Your task to perform on an android device: Search for Italian restaurants on Maps Image 0: 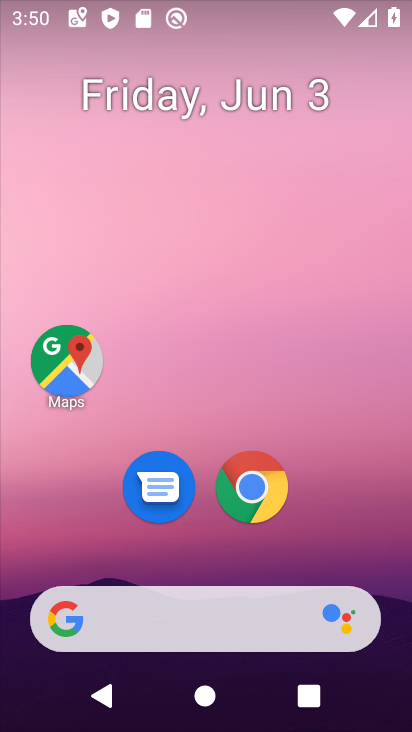
Step 0: drag from (218, 37) to (287, 1)
Your task to perform on an android device: Search for Italian restaurants on Maps Image 1: 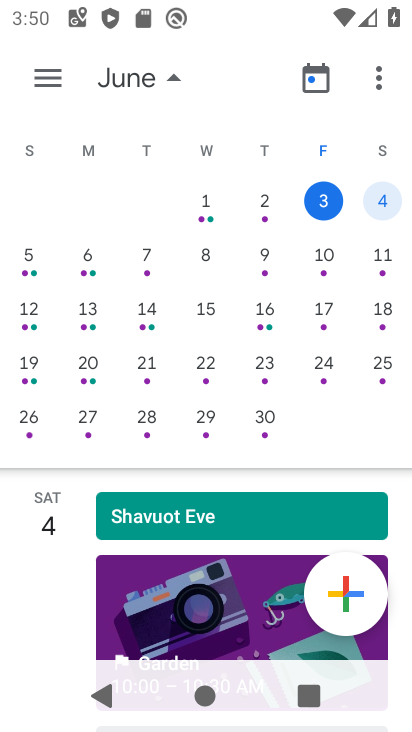
Step 1: press home button
Your task to perform on an android device: Search for Italian restaurants on Maps Image 2: 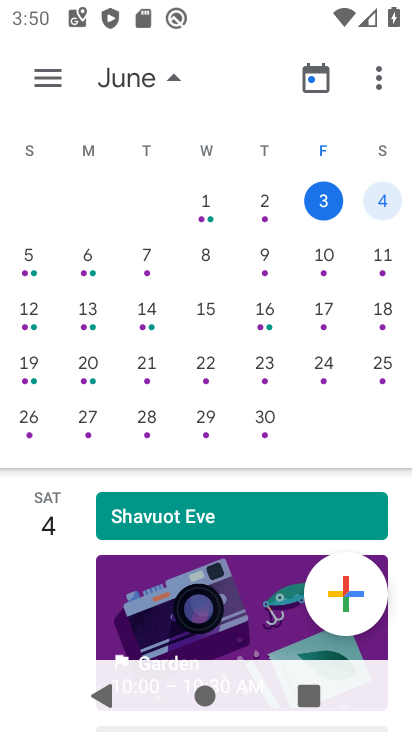
Step 2: drag from (174, 503) to (293, 6)
Your task to perform on an android device: Search for Italian restaurants on Maps Image 3: 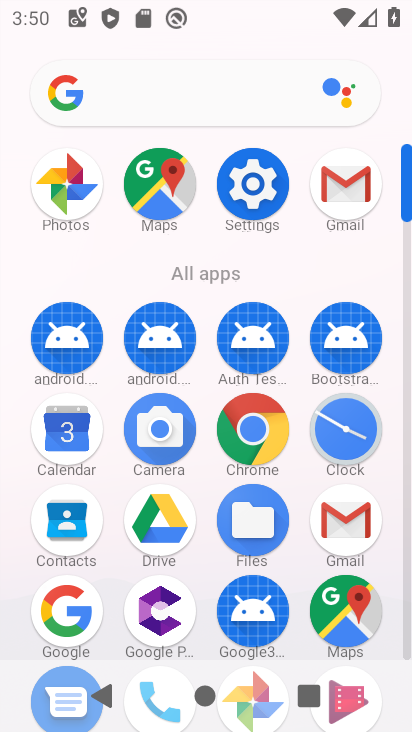
Step 3: click (345, 618)
Your task to perform on an android device: Search for Italian restaurants on Maps Image 4: 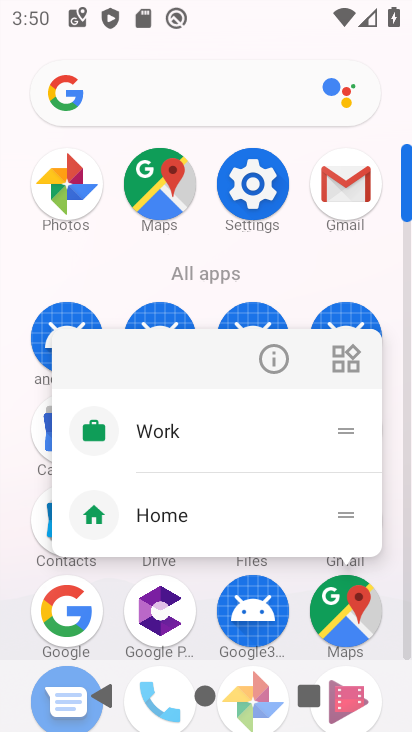
Step 4: click (270, 340)
Your task to perform on an android device: Search for Italian restaurants on Maps Image 5: 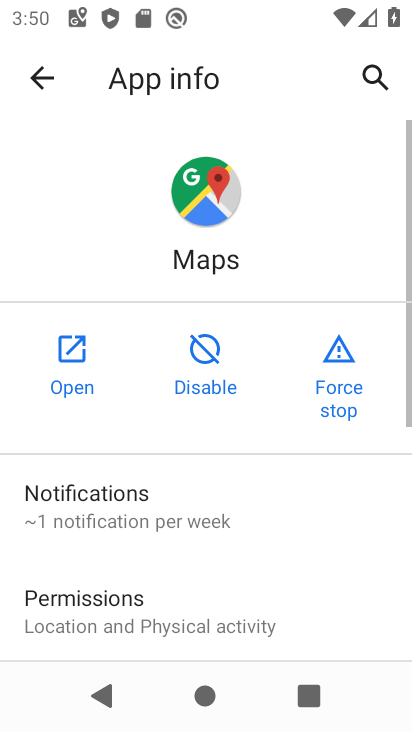
Step 5: click (54, 356)
Your task to perform on an android device: Search for Italian restaurants on Maps Image 6: 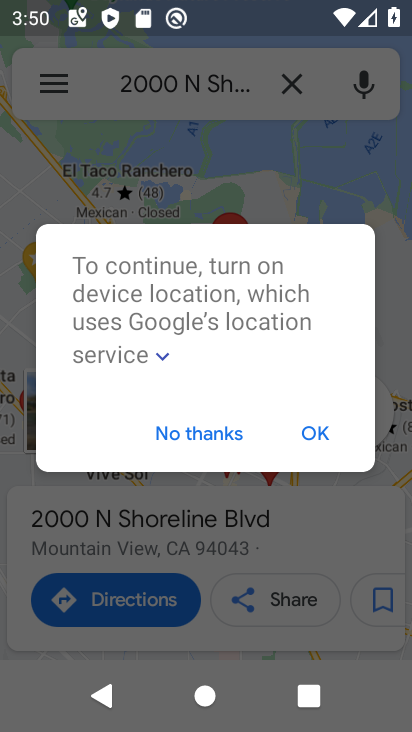
Step 6: click (304, 436)
Your task to perform on an android device: Search for Italian restaurants on Maps Image 7: 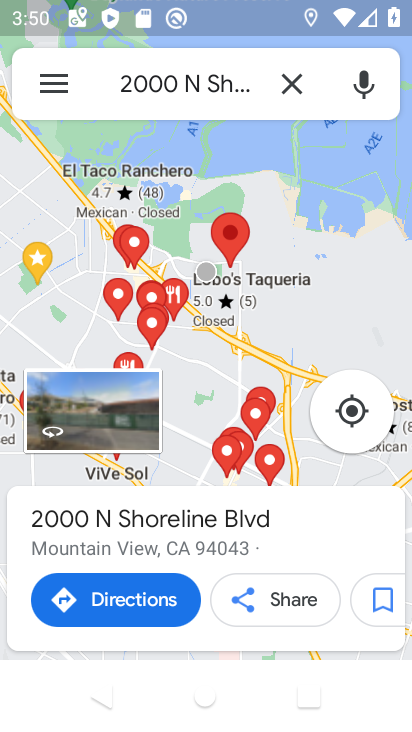
Step 7: click (293, 72)
Your task to perform on an android device: Search for Italian restaurants on Maps Image 8: 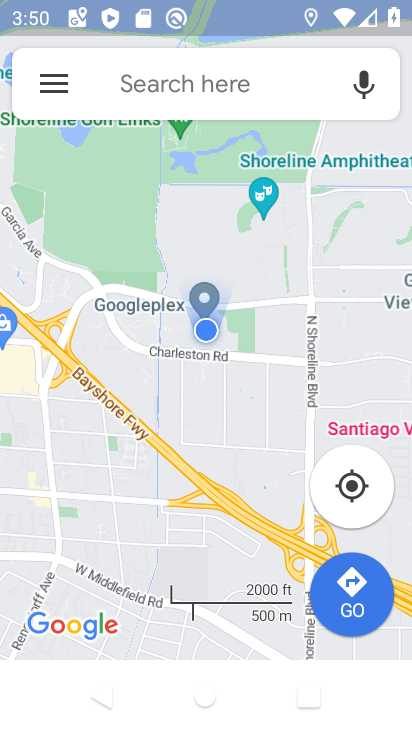
Step 8: click (182, 80)
Your task to perform on an android device: Search for Italian restaurants on Maps Image 9: 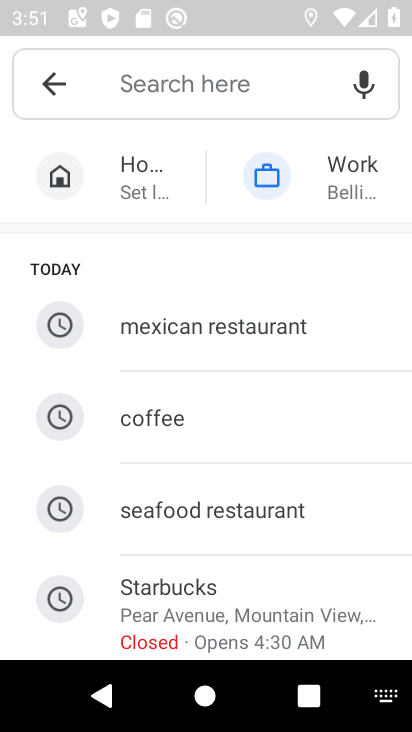
Step 9: drag from (220, 488) to (257, 123)
Your task to perform on an android device: Search for Italian restaurants on Maps Image 10: 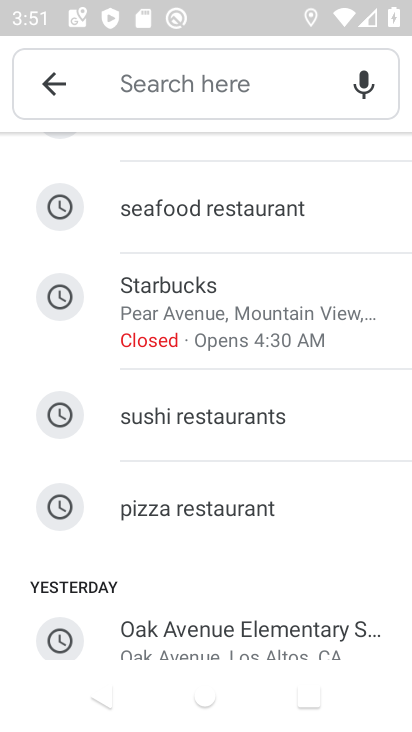
Step 10: drag from (207, 563) to (256, 158)
Your task to perform on an android device: Search for Italian restaurants on Maps Image 11: 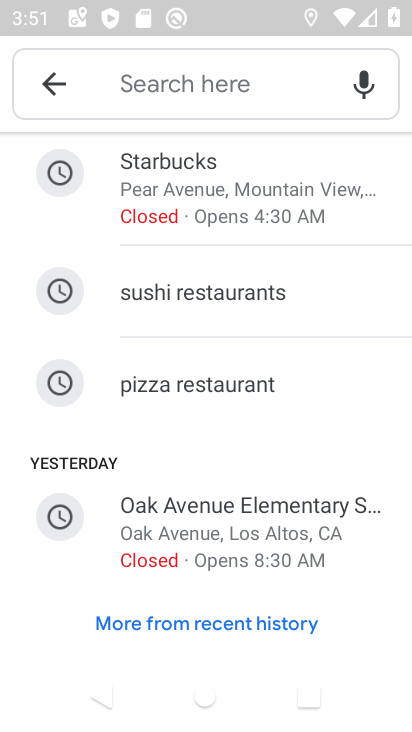
Step 11: click (176, 87)
Your task to perform on an android device: Search for Italian restaurants on Maps Image 12: 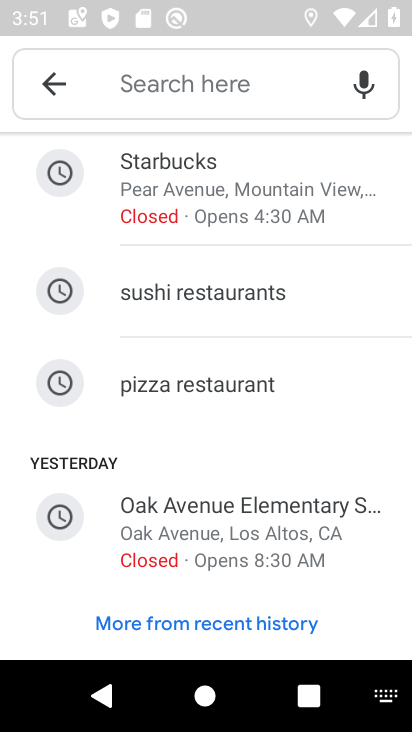
Step 12: type "italian restaurants"
Your task to perform on an android device: Search for Italian restaurants on Maps Image 13: 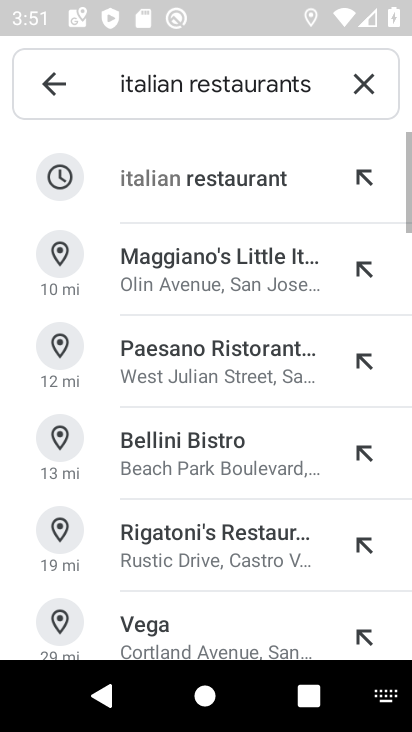
Step 13: click (208, 193)
Your task to perform on an android device: Search for Italian restaurants on Maps Image 14: 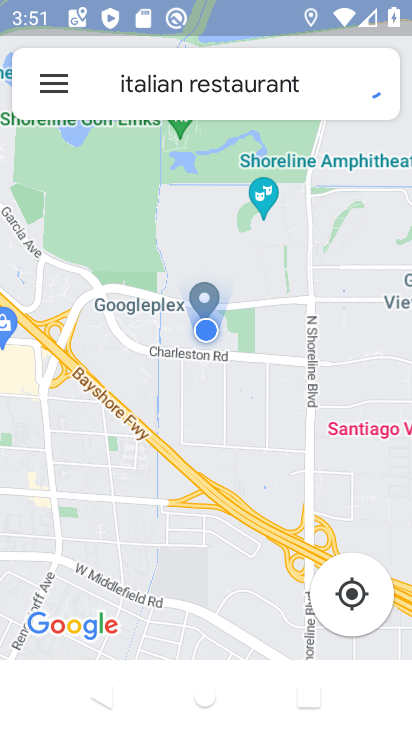
Step 14: task complete